Your task to perform on an android device: Open Wikipedia Image 0: 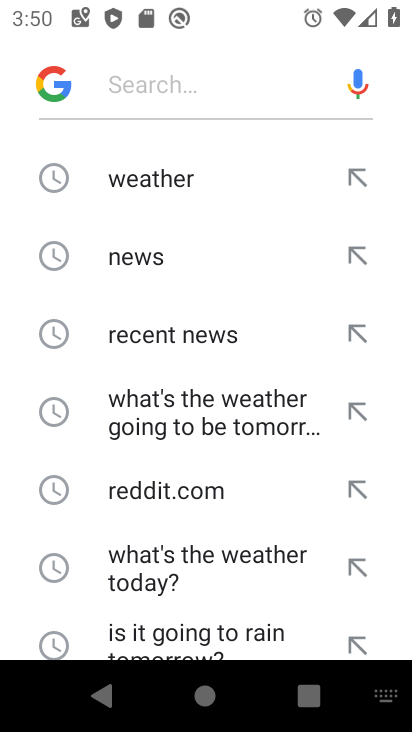
Step 0: press home button
Your task to perform on an android device: Open Wikipedia Image 1: 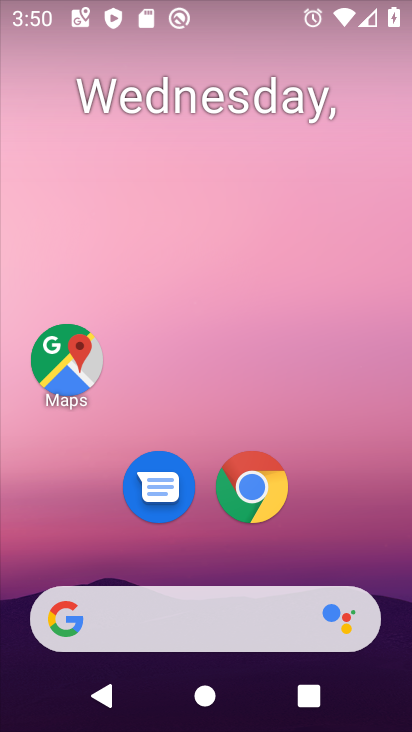
Step 1: drag from (369, 537) to (360, 215)
Your task to perform on an android device: Open Wikipedia Image 2: 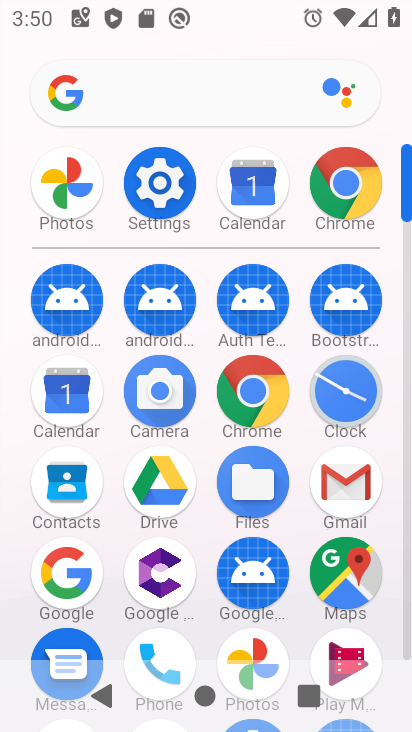
Step 2: click (269, 402)
Your task to perform on an android device: Open Wikipedia Image 3: 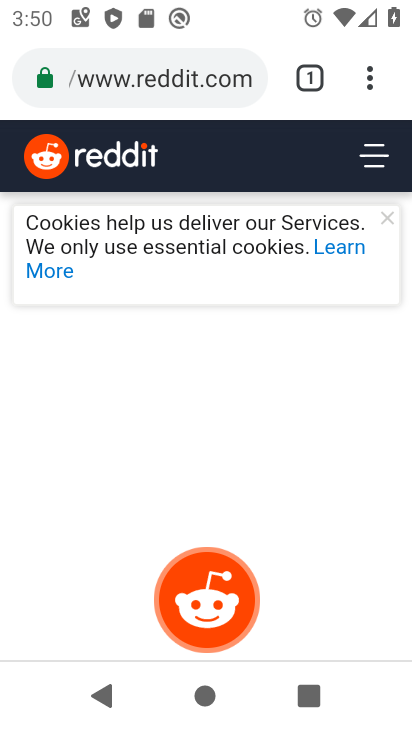
Step 3: click (206, 53)
Your task to perform on an android device: Open Wikipedia Image 4: 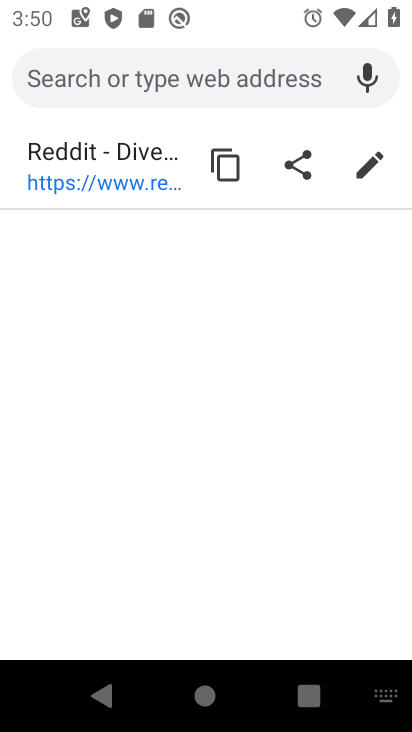
Step 4: type "wikipedia"
Your task to perform on an android device: Open Wikipedia Image 5: 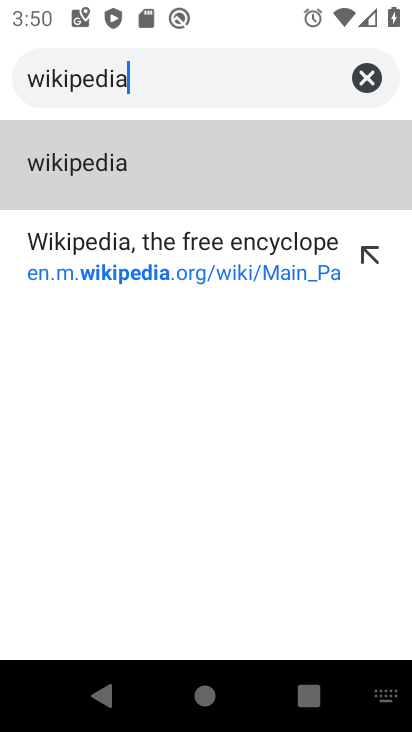
Step 5: click (144, 168)
Your task to perform on an android device: Open Wikipedia Image 6: 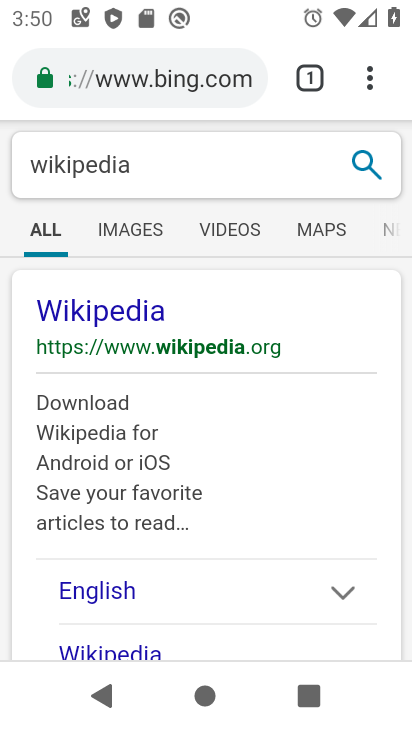
Step 6: click (141, 312)
Your task to perform on an android device: Open Wikipedia Image 7: 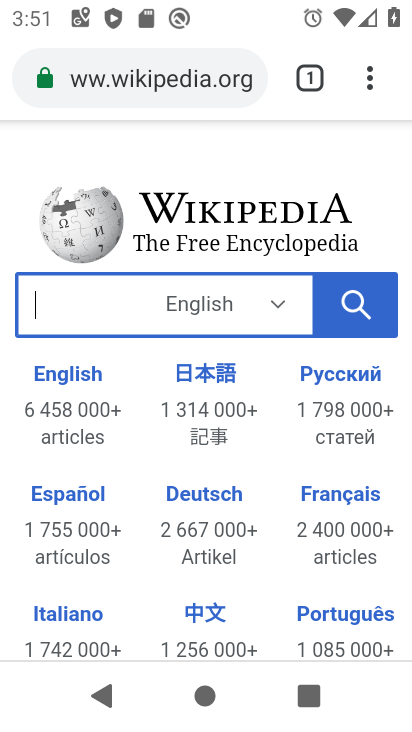
Step 7: task complete